Your task to perform on an android device: Open the calendar and show me this week's events Image 0: 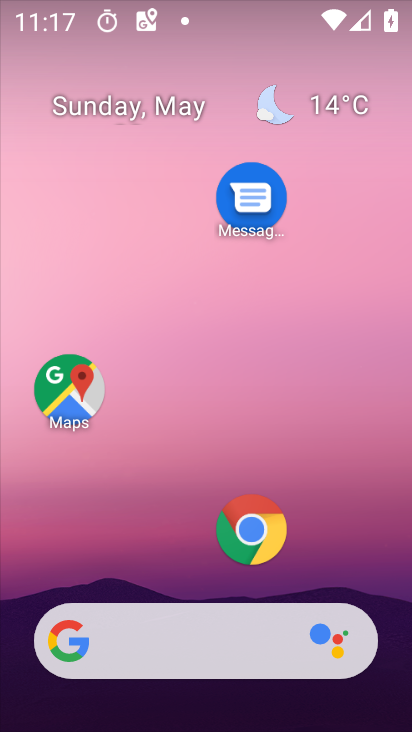
Step 0: drag from (191, 557) to (239, 279)
Your task to perform on an android device: Open the calendar and show me this week's events Image 1: 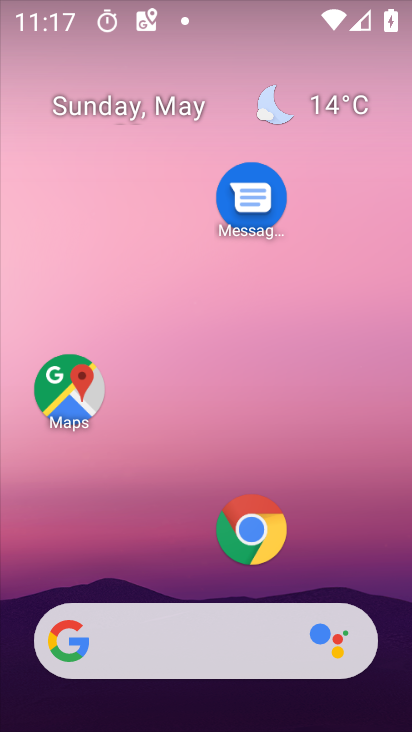
Step 1: drag from (155, 551) to (160, 266)
Your task to perform on an android device: Open the calendar and show me this week's events Image 2: 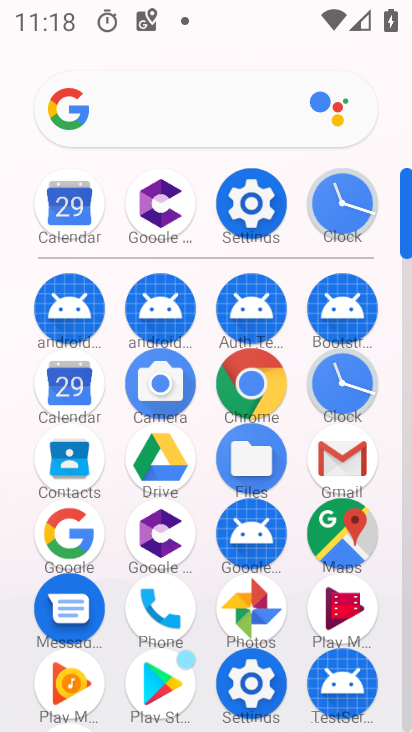
Step 2: click (71, 393)
Your task to perform on an android device: Open the calendar and show me this week's events Image 3: 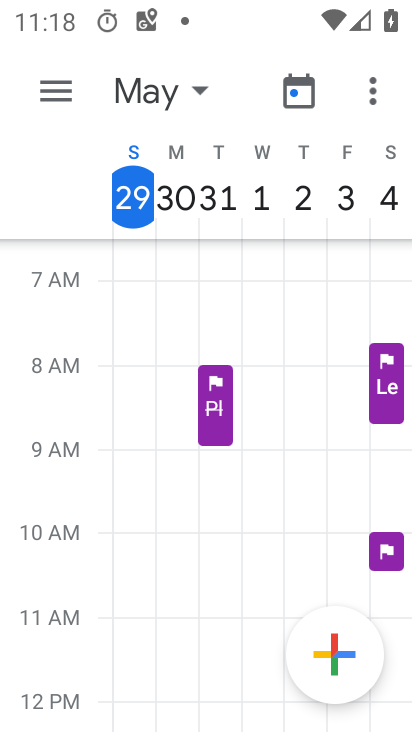
Step 3: task complete